Your task to perform on an android device: What's the weather going to be tomorrow? Image 0: 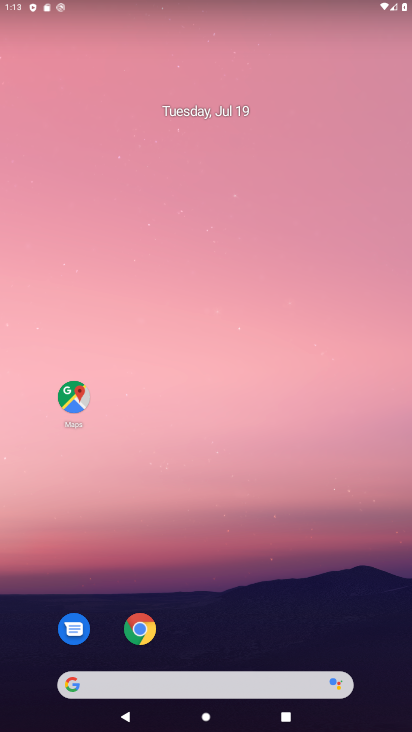
Step 0: click (209, 681)
Your task to perform on an android device: What's the weather going to be tomorrow? Image 1: 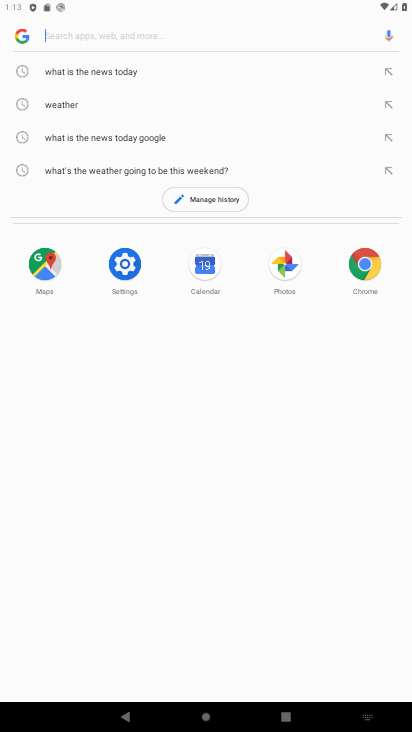
Step 1: type "what's the weather going to be tomorrow"
Your task to perform on an android device: What's the weather going to be tomorrow? Image 2: 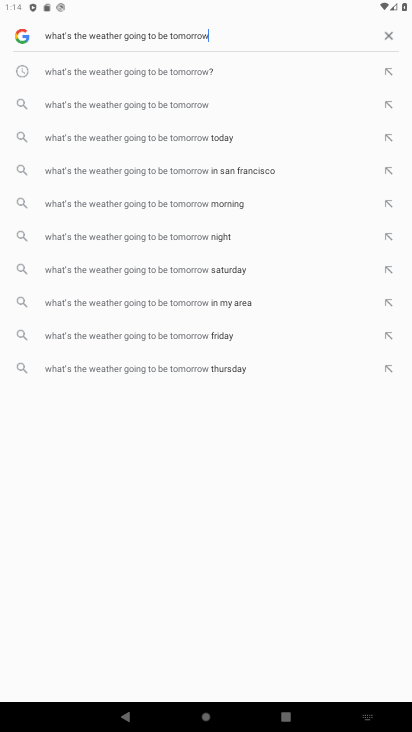
Step 2: click (89, 79)
Your task to perform on an android device: What's the weather going to be tomorrow? Image 3: 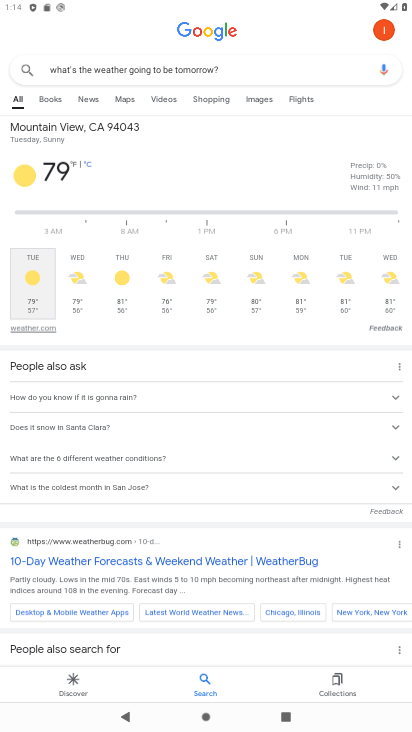
Step 3: task complete